Your task to perform on an android device: Open Chrome and go to settings Image 0: 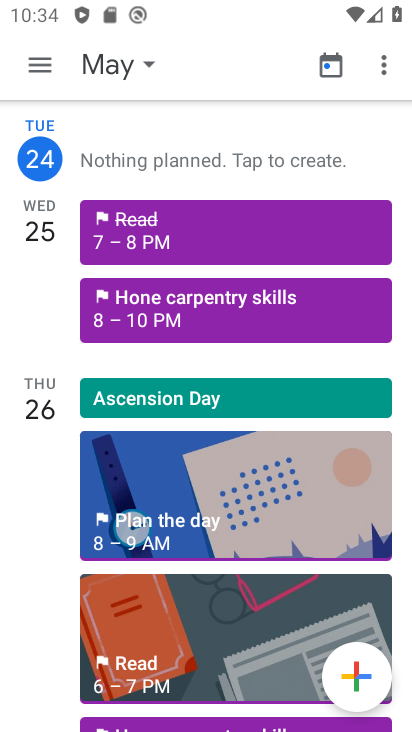
Step 0: press home button
Your task to perform on an android device: Open Chrome and go to settings Image 1: 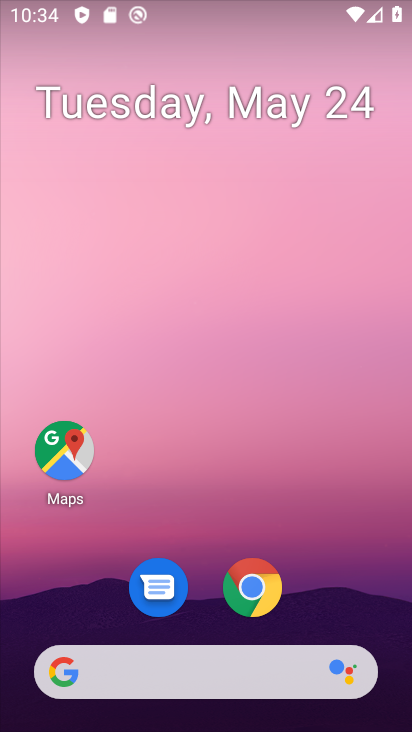
Step 1: drag from (346, 592) to (163, 181)
Your task to perform on an android device: Open Chrome and go to settings Image 2: 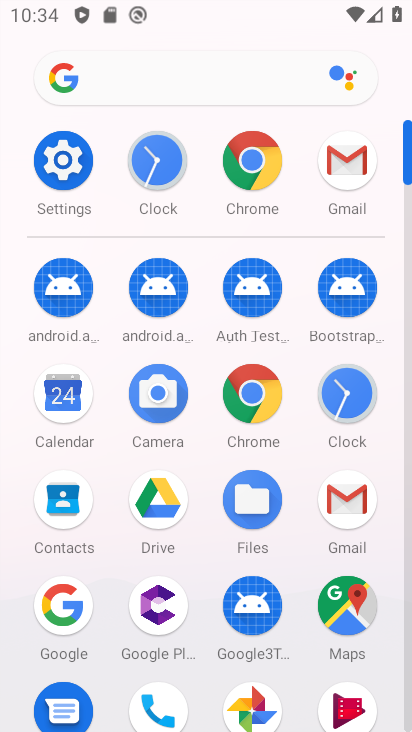
Step 2: click (259, 167)
Your task to perform on an android device: Open Chrome and go to settings Image 3: 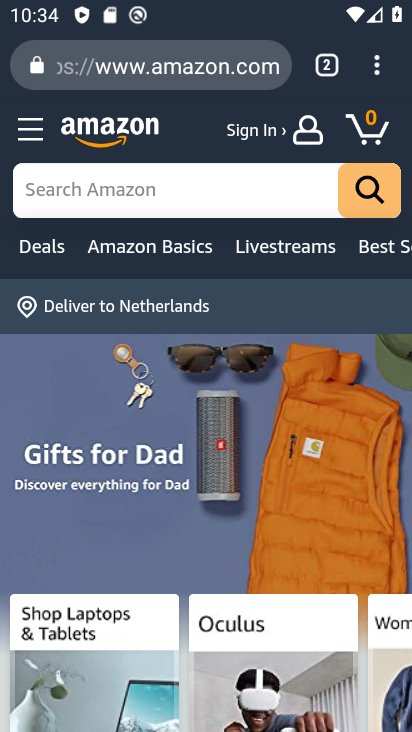
Step 3: task complete